Your task to perform on an android device: Go to Android settings Image 0: 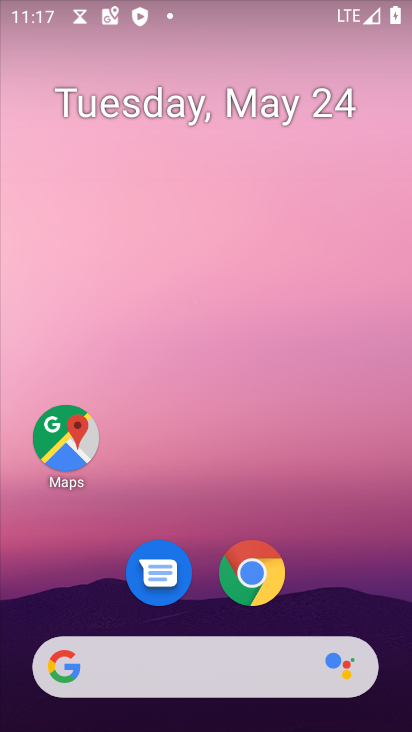
Step 0: drag from (58, 640) to (226, 180)
Your task to perform on an android device: Go to Android settings Image 1: 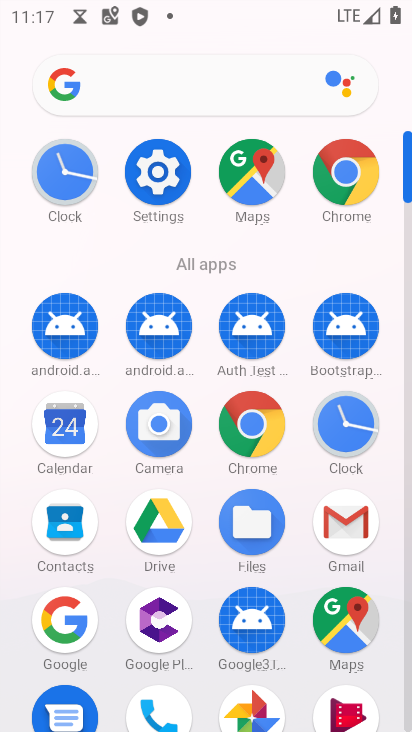
Step 1: drag from (147, 644) to (248, 333)
Your task to perform on an android device: Go to Android settings Image 2: 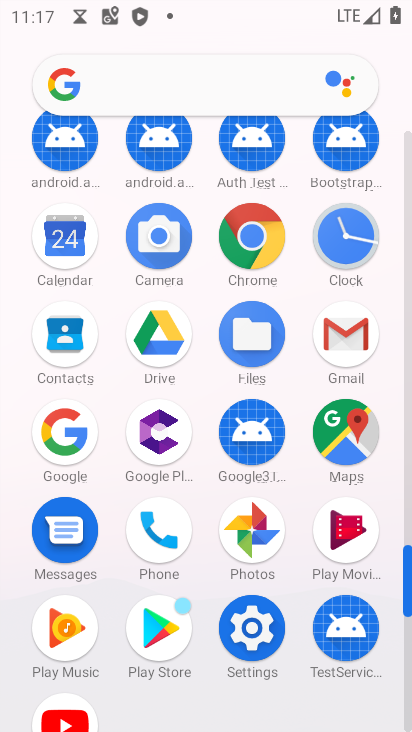
Step 2: click (258, 648)
Your task to perform on an android device: Go to Android settings Image 3: 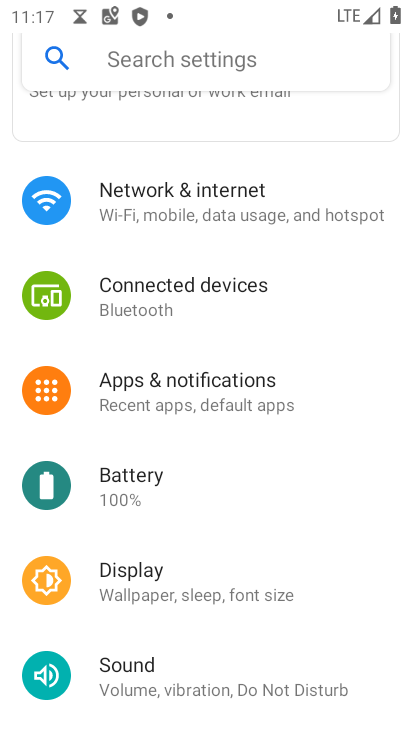
Step 3: task complete